Your task to perform on an android device: change the clock display to analog Image 0: 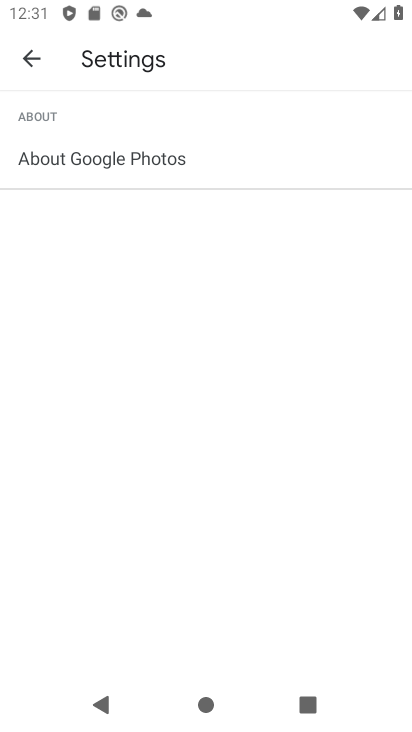
Step 0: press home button
Your task to perform on an android device: change the clock display to analog Image 1: 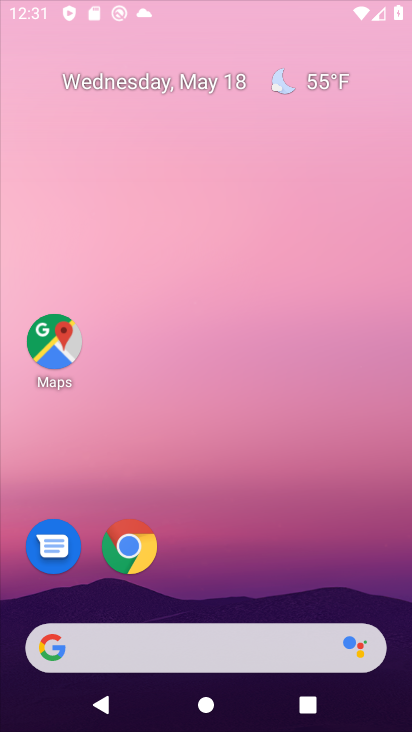
Step 1: drag from (355, 595) to (345, 184)
Your task to perform on an android device: change the clock display to analog Image 2: 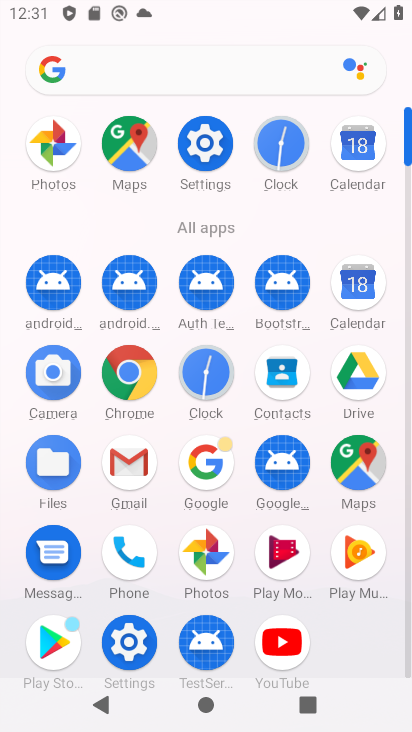
Step 2: click (196, 391)
Your task to perform on an android device: change the clock display to analog Image 3: 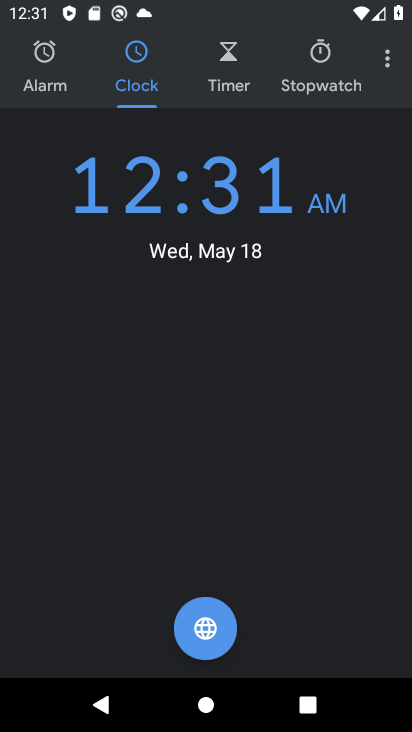
Step 3: click (386, 71)
Your task to perform on an android device: change the clock display to analog Image 4: 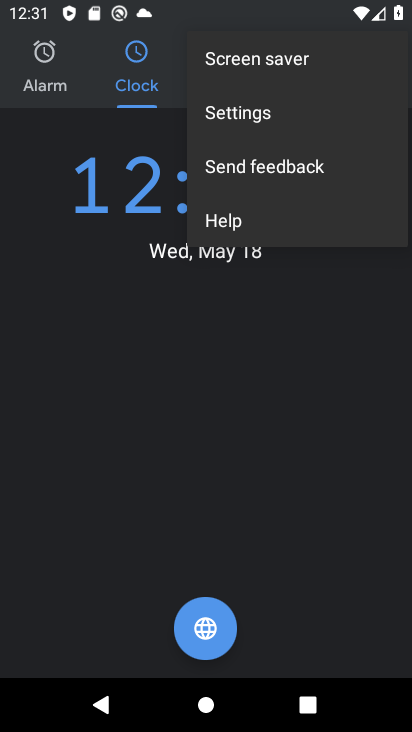
Step 4: click (278, 125)
Your task to perform on an android device: change the clock display to analog Image 5: 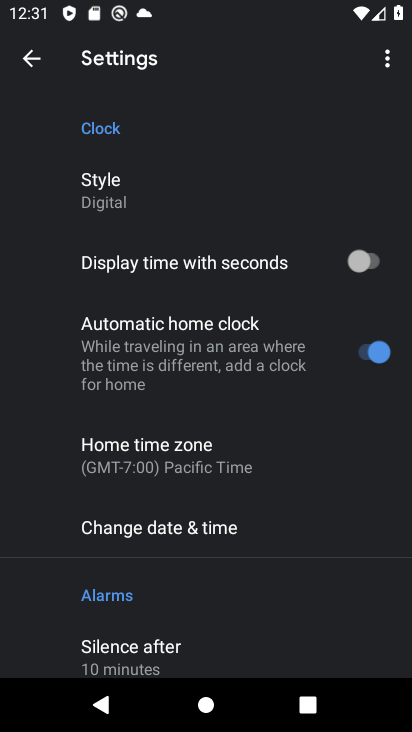
Step 5: click (186, 178)
Your task to perform on an android device: change the clock display to analog Image 6: 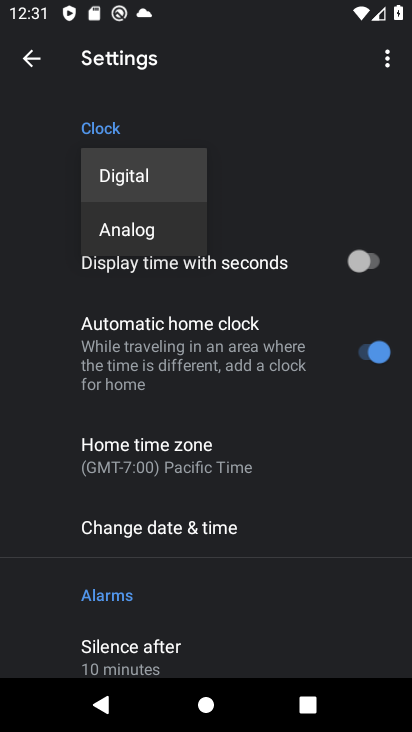
Step 6: click (169, 218)
Your task to perform on an android device: change the clock display to analog Image 7: 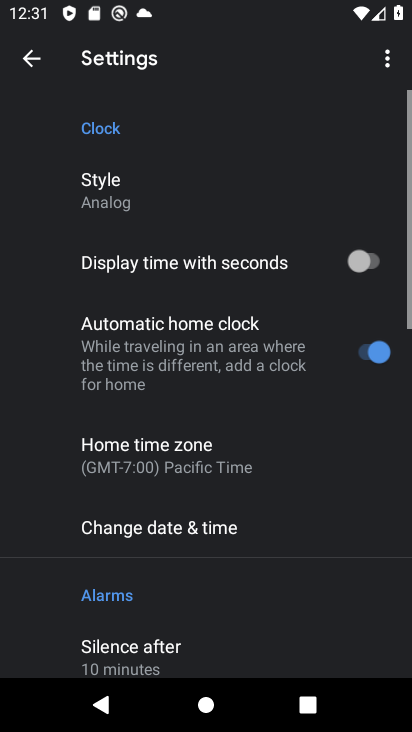
Step 7: task complete